Your task to perform on an android device: change the clock display to show seconds Image 0: 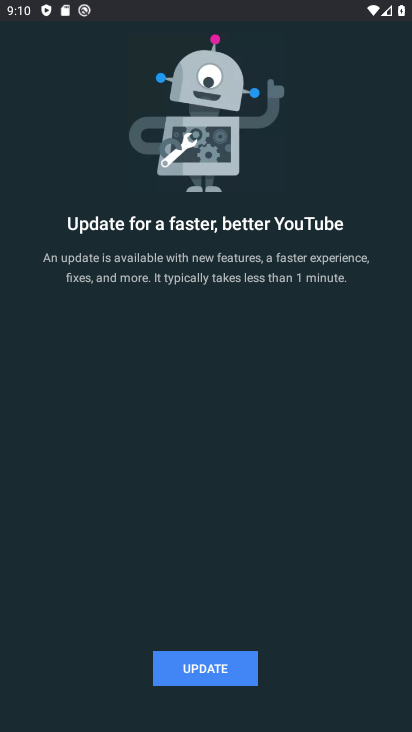
Step 0: press home button
Your task to perform on an android device: change the clock display to show seconds Image 1: 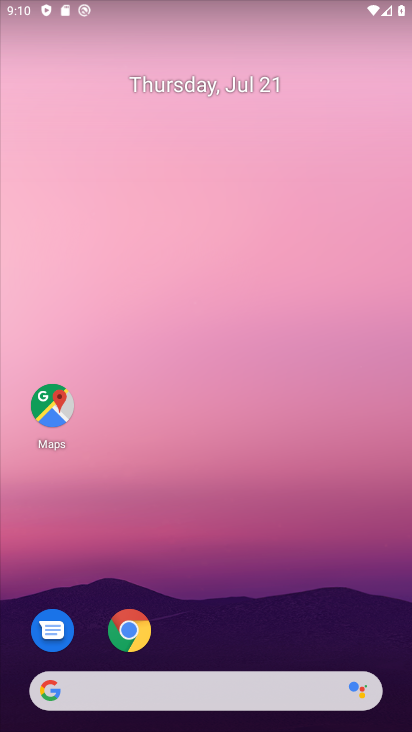
Step 1: drag from (210, 711) to (216, 216)
Your task to perform on an android device: change the clock display to show seconds Image 2: 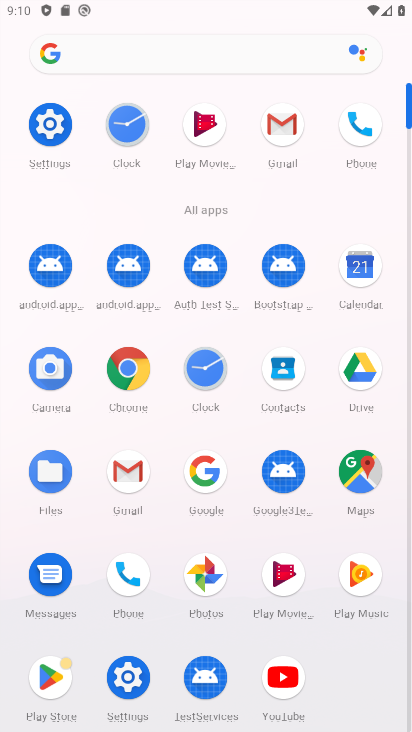
Step 2: click (201, 372)
Your task to perform on an android device: change the clock display to show seconds Image 3: 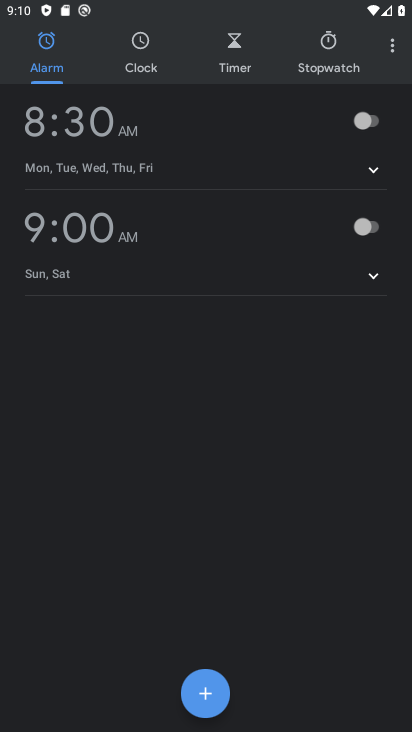
Step 3: click (391, 48)
Your task to perform on an android device: change the clock display to show seconds Image 4: 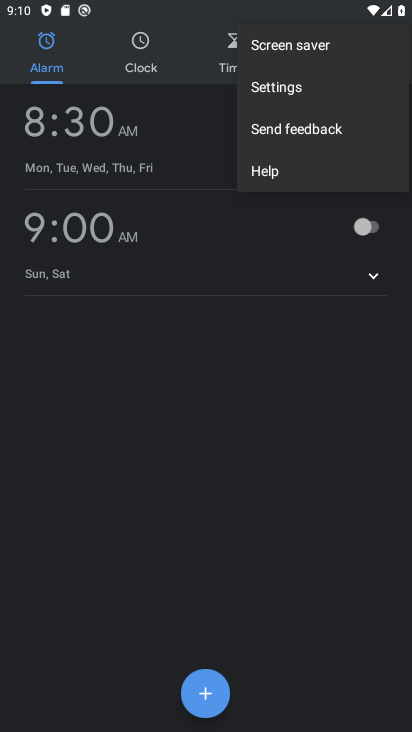
Step 4: click (286, 84)
Your task to perform on an android device: change the clock display to show seconds Image 5: 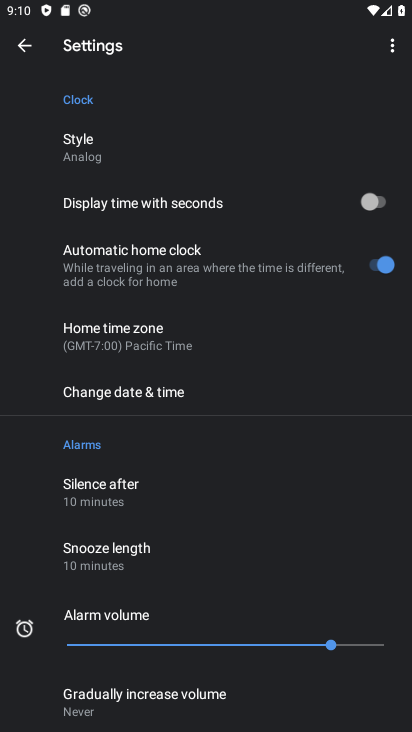
Step 5: click (374, 203)
Your task to perform on an android device: change the clock display to show seconds Image 6: 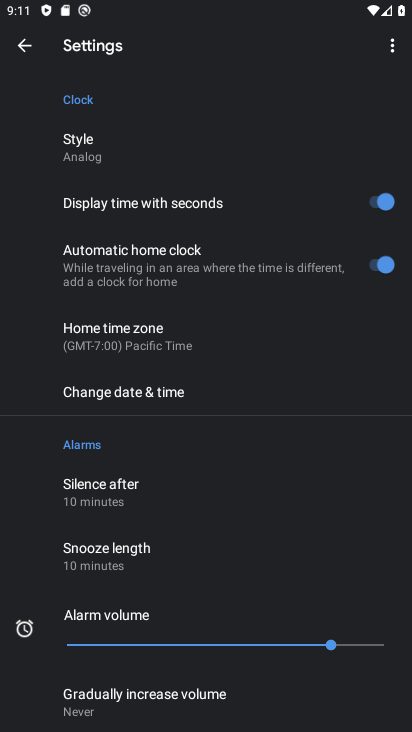
Step 6: task complete